Your task to perform on an android device: find photos in the google photos app Image 0: 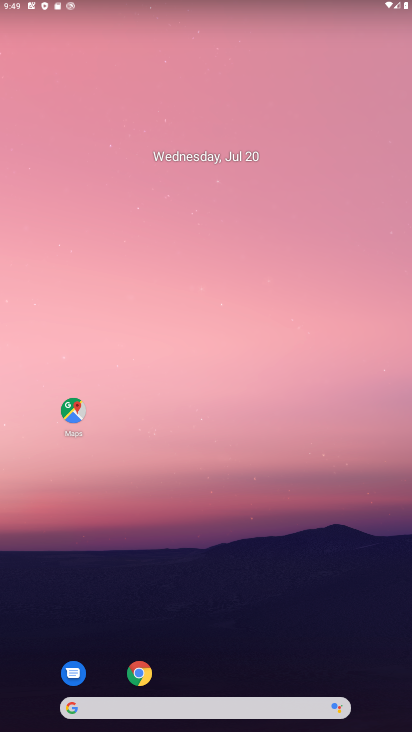
Step 0: drag from (206, 708) to (172, 177)
Your task to perform on an android device: find photos in the google photos app Image 1: 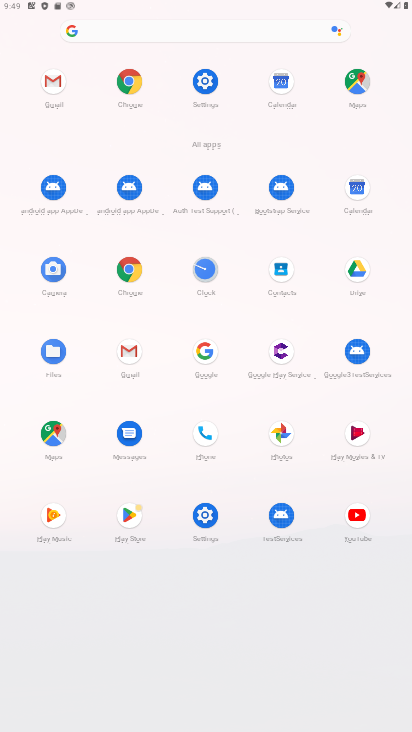
Step 1: click (283, 433)
Your task to perform on an android device: find photos in the google photos app Image 2: 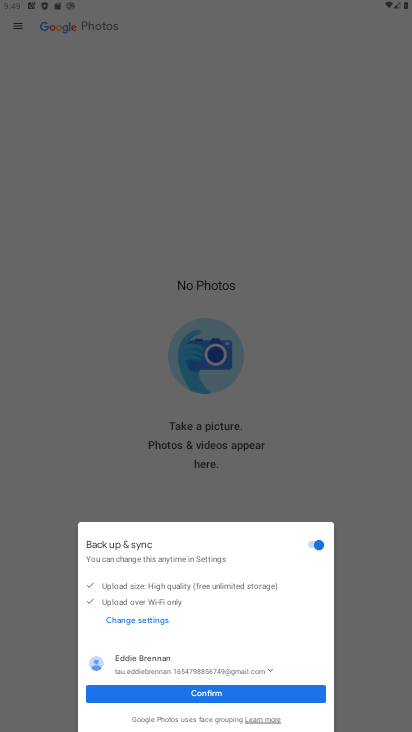
Step 2: click (190, 691)
Your task to perform on an android device: find photos in the google photos app Image 3: 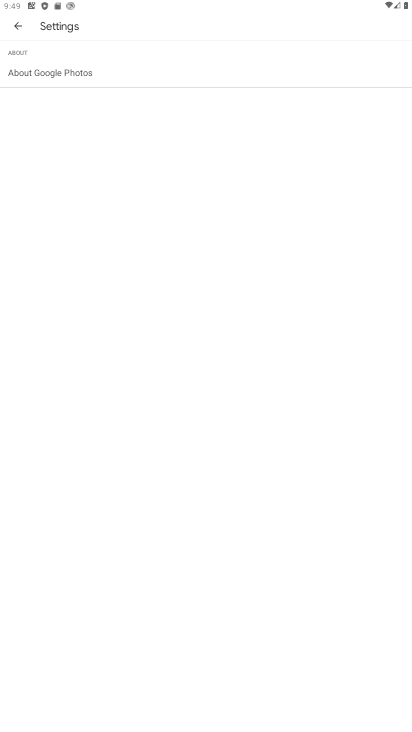
Step 3: press back button
Your task to perform on an android device: find photos in the google photos app Image 4: 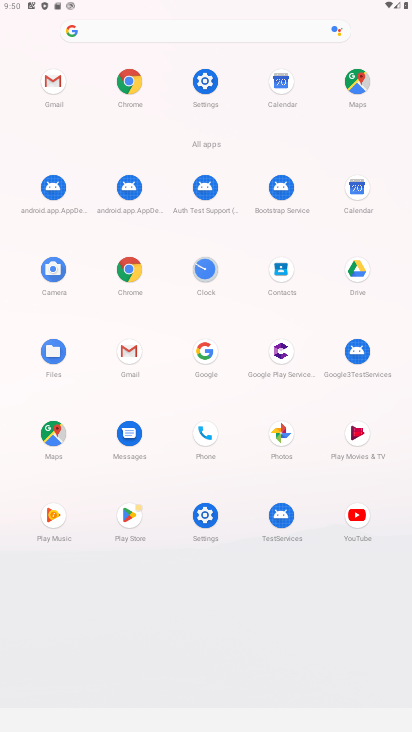
Step 4: click (281, 432)
Your task to perform on an android device: find photos in the google photos app Image 5: 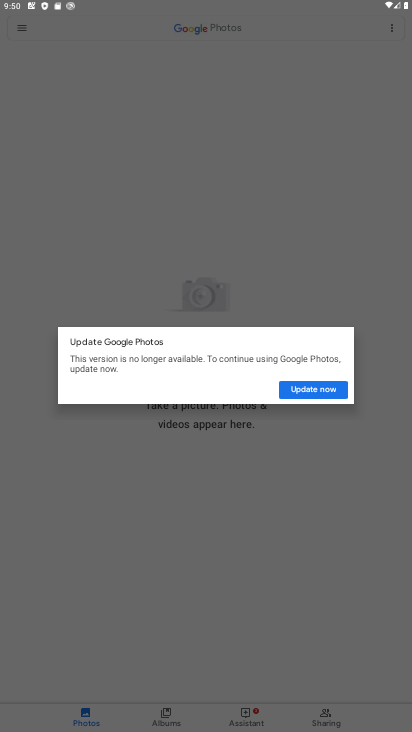
Step 5: click (310, 388)
Your task to perform on an android device: find photos in the google photos app Image 6: 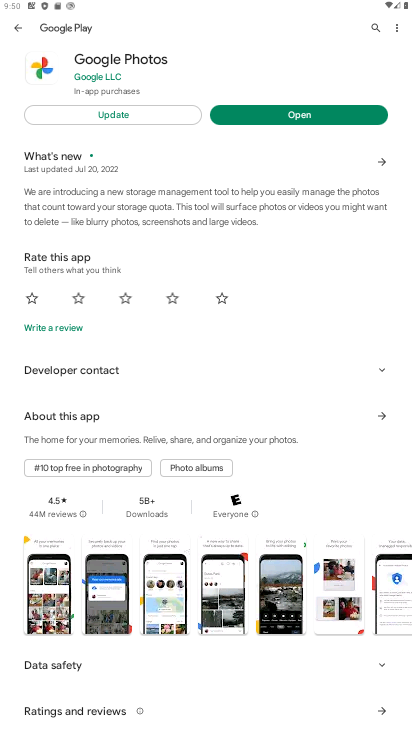
Step 6: click (129, 115)
Your task to perform on an android device: find photos in the google photos app Image 7: 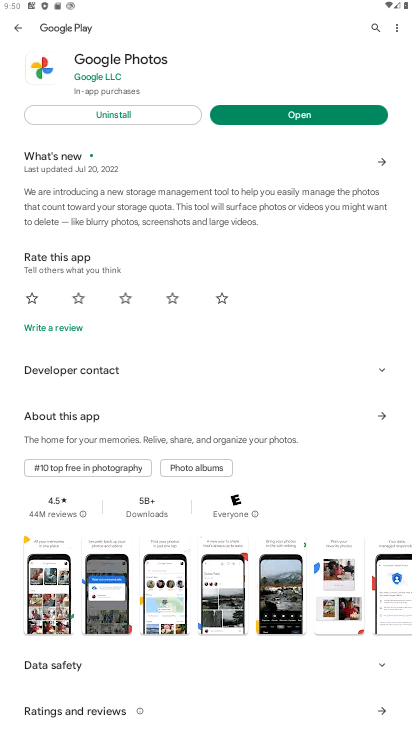
Step 7: click (293, 116)
Your task to perform on an android device: find photos in the google photos app Image 8: 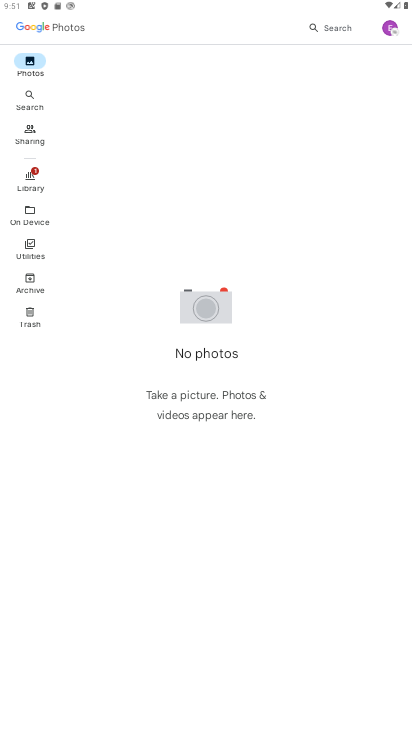
Step 8: click (37, 250)
Your task to perform on an android device: find photos in the google photos app Image 9: 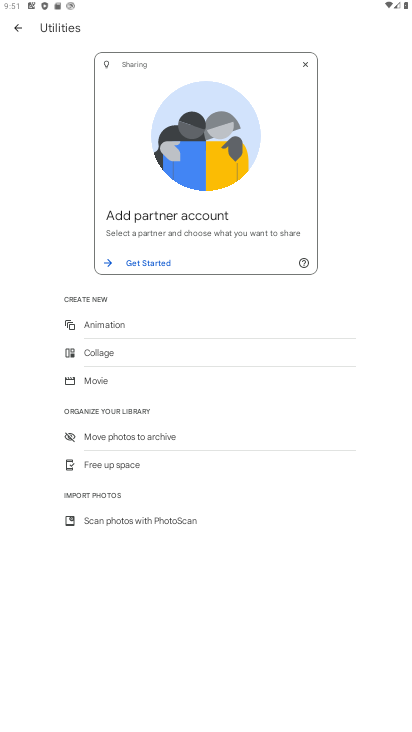
Step 9: click (97, 324)
Your task to perform on an android device: find photos in the google photos app Image 10: 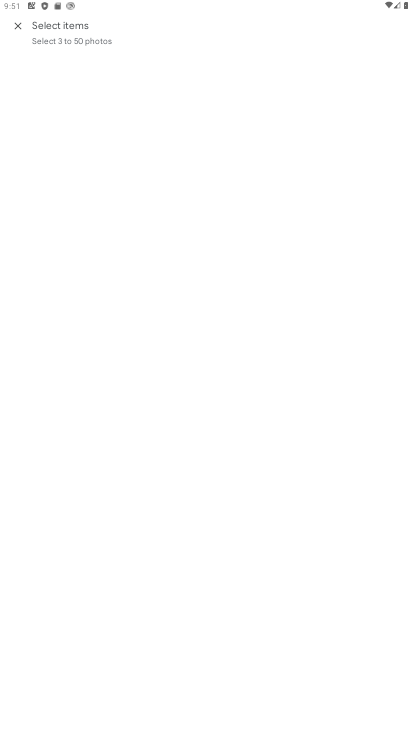
Step 10: task complete